Your task to perform on an android device: Search for seafood restaurants on Google Maps Image 0: 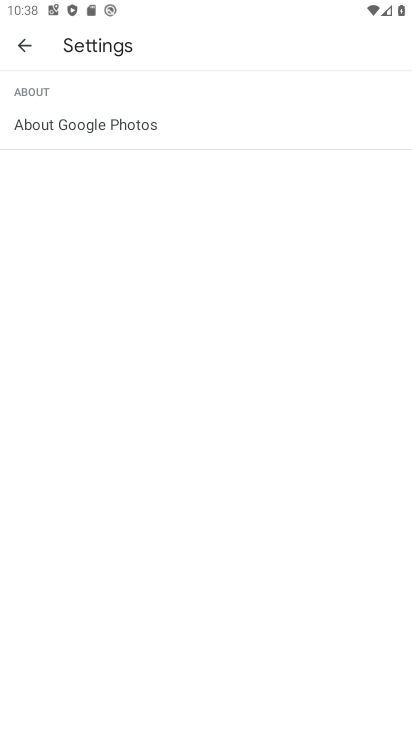
Step 0: press home button
Your task to perform on an android device: Search for seafood restaurants on Google Maps Image 1: 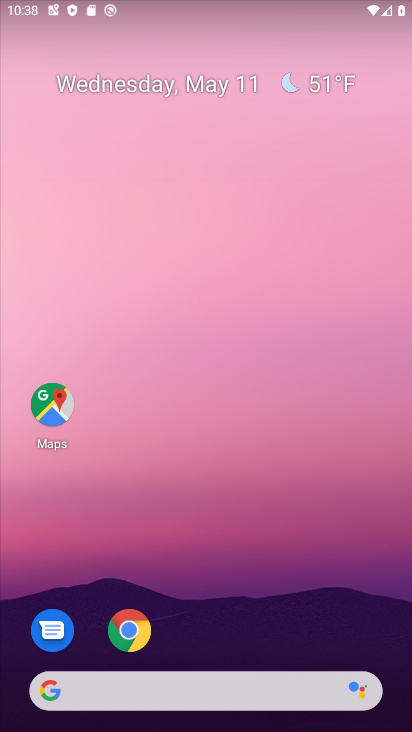
Step 1: drag from (220, 722) to (198, 228)
Your task to perform on an android device: Search for seafood restaurants on Google Maps Image 2: 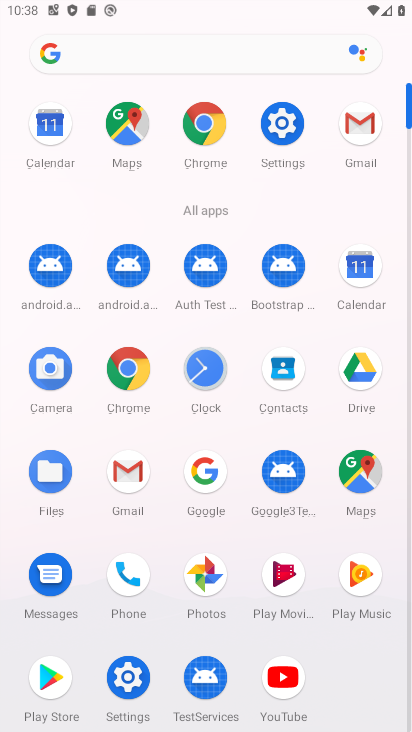
Step 2: click (356, 473)
Your task to perform on an android device: Search for seafood restaurants on Google Maps Image 3: 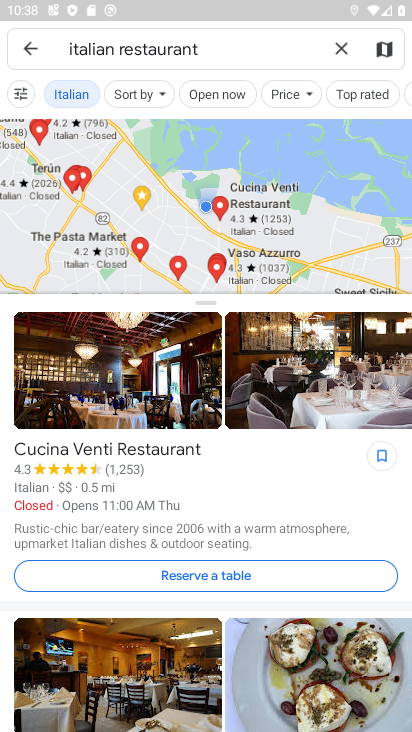
Step 3: click (339, 46)
Your task to perform on an android device: Search for seafood restaurants on Google Maps Image 4: 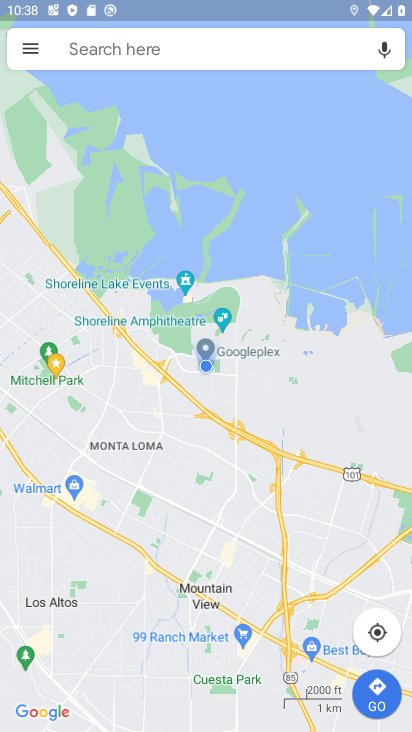
Step 4: click (238, 55)
Your task to perform on an android device: Search for seafood restaurants on Google Maps Image 5: 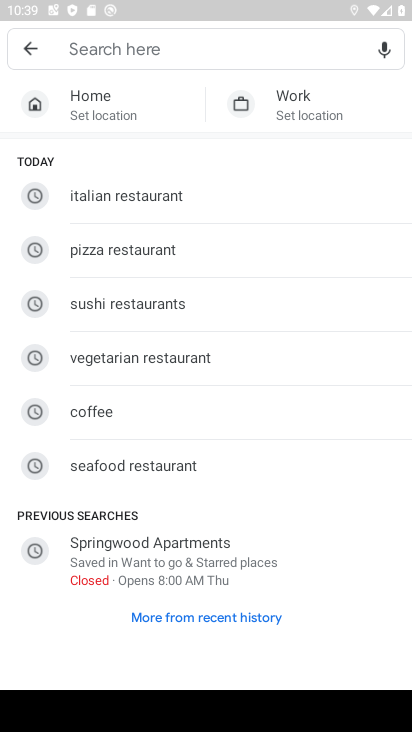
Step 5: type "seafood restaurants"
Your task to perform on an android device: Search for seafood restaurants on Google Maps Image 6: 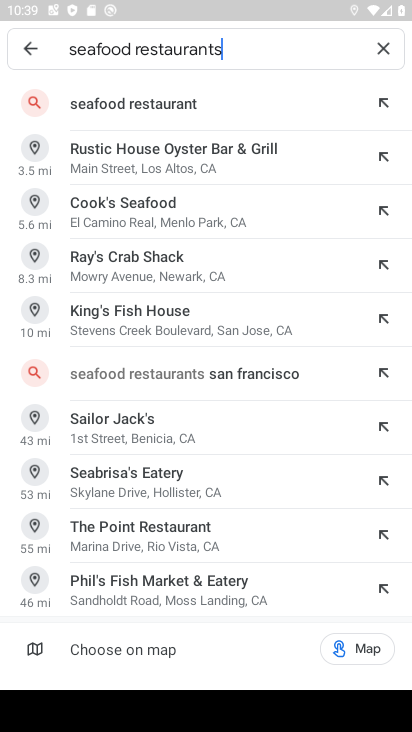
Step 6: click (152, 97)
Your task to perform on an android device: Search for seafood restaurants on Google Maps Image 7: 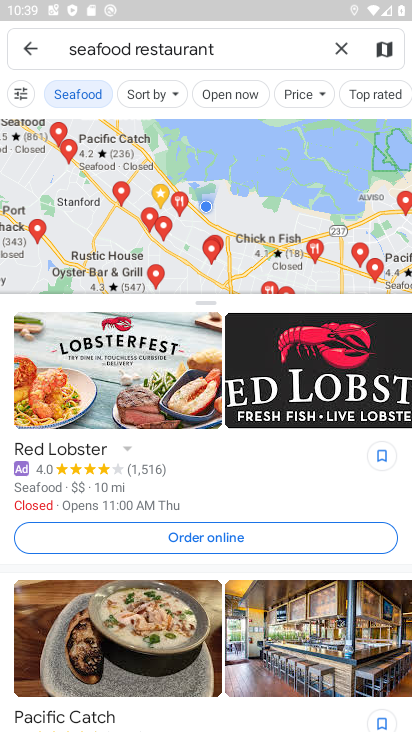
Step 7: task complete